Your task to perform on an android device: toggle airplane mode Image 0: 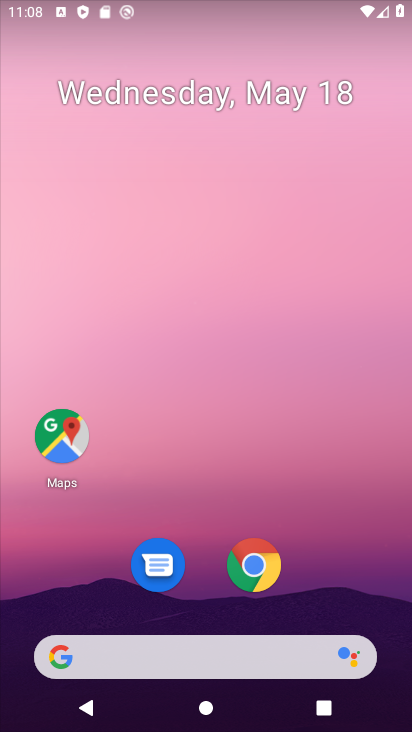
Step 0: drag from (192, 664) to (183, 174)
Your task to perform on an android device: toggle airplane mode Image 1: 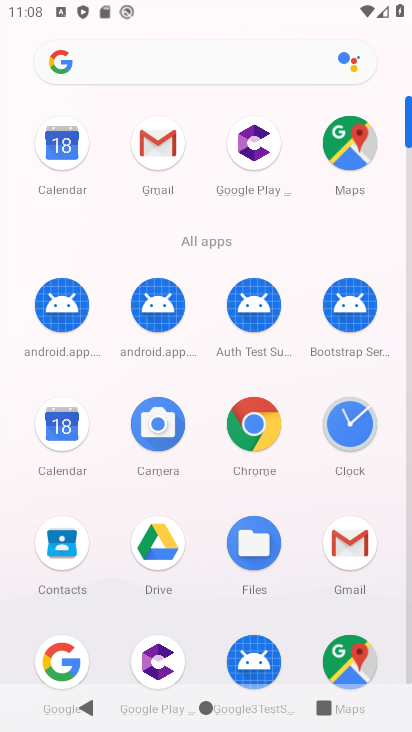
Step 1: drag from (190, 627) to (189, 193)
Your task to perform on an android device: toggle airplane mode Image 2: 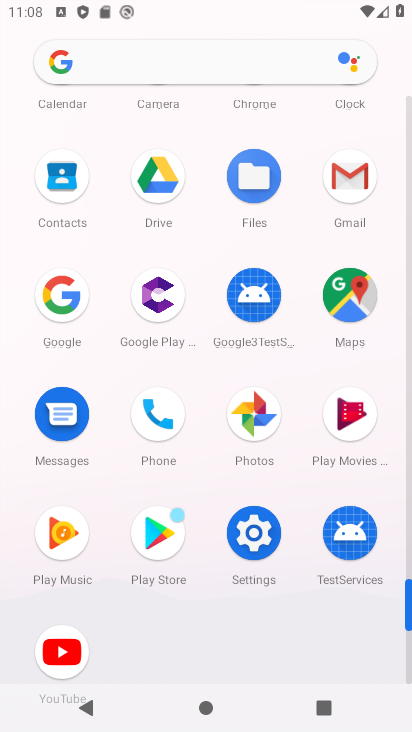
Step 2: click (244, 548)
Your task to perform on an android device: toggle airplane mode Image 3: 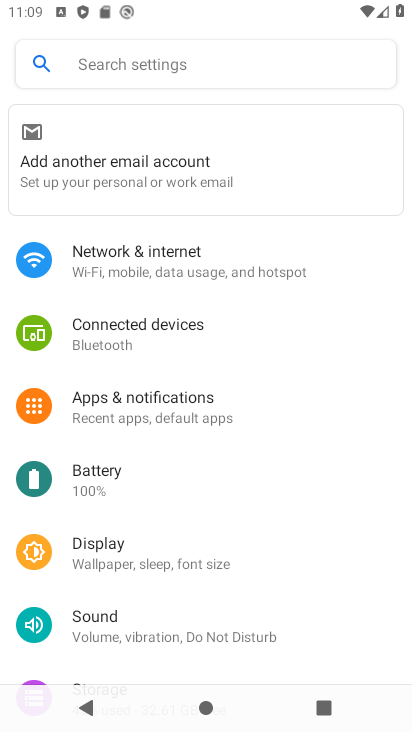
Step 3: click (130, 263)
Your task to perform on an android device: toggle airplane mode Image 4: 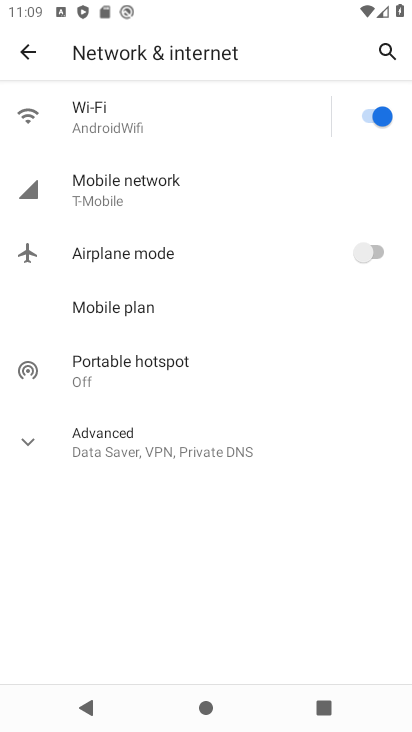
Step 4: click (366, 259)
Your task to perform on an android device: toggle airplane mode Image 5: 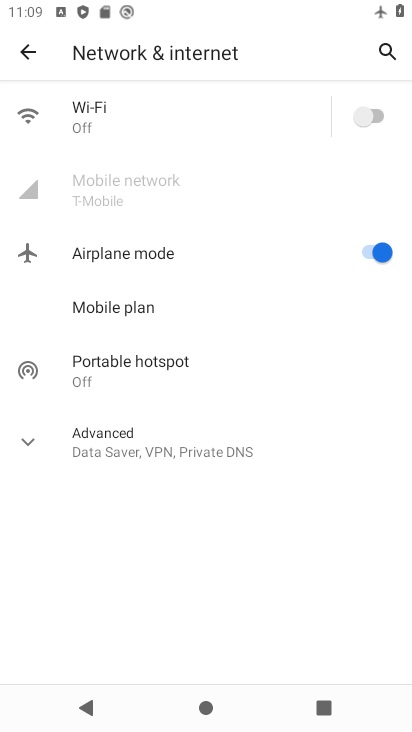
Step 5: task complete